Your task to perform on an android device: Open Google Chrome Image 0: 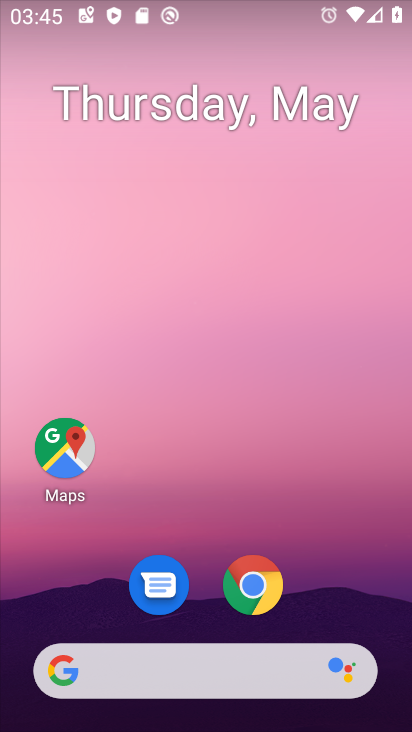
Step 0: click (245, 579)
Your task to perform on an android device: Open Google Chrome Image 1: 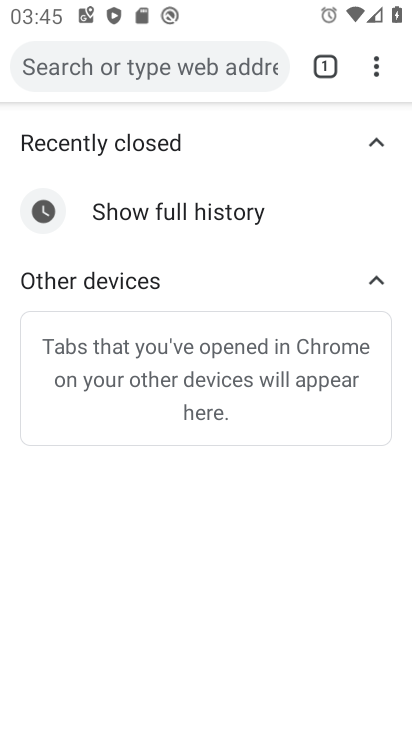
Step 1: press home button
Your task to perform on an android device: Open Google Chrome Image 2: 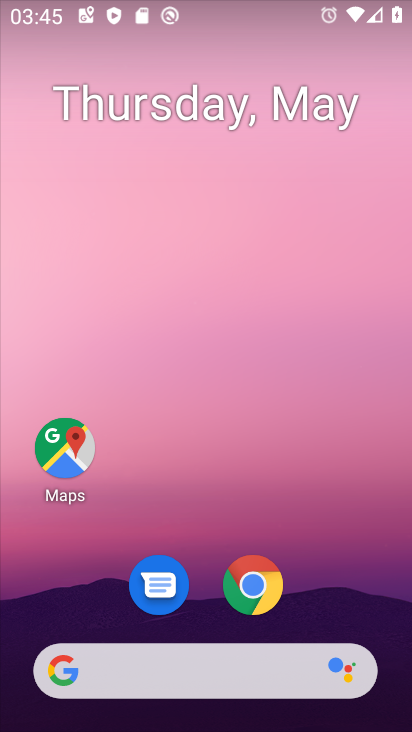
Step 2: click (251, 586)
Your task to perform on an android device: Open Google Chrome Image 3: 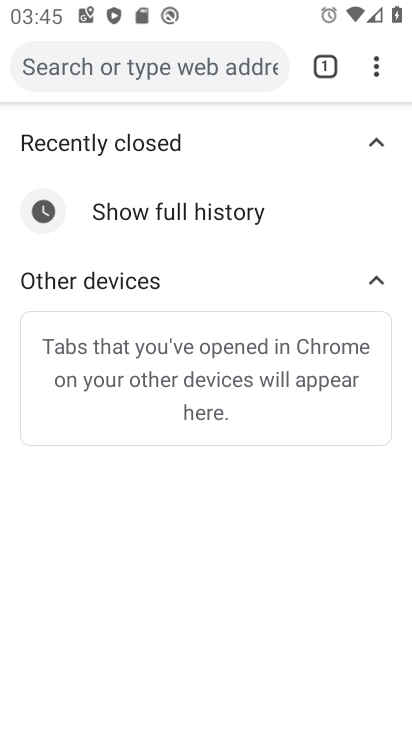
Step 3: click (369, 63)
Your task to perform on an android device: Open Google Chrome Image 4: 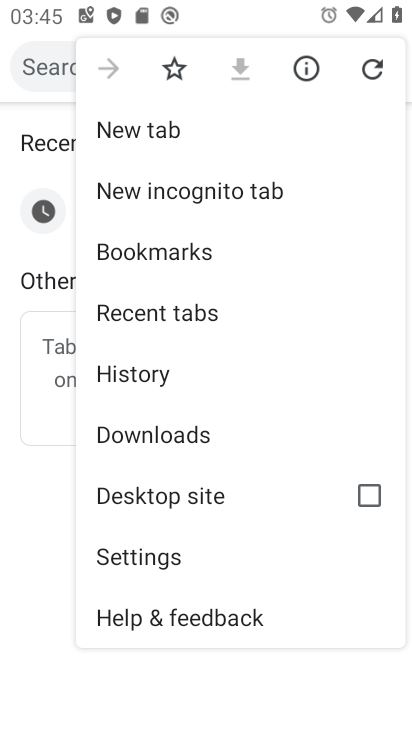
Step 4: click (290, 120)
Your task to perform on an android device: Open Google Chrome Image 5: 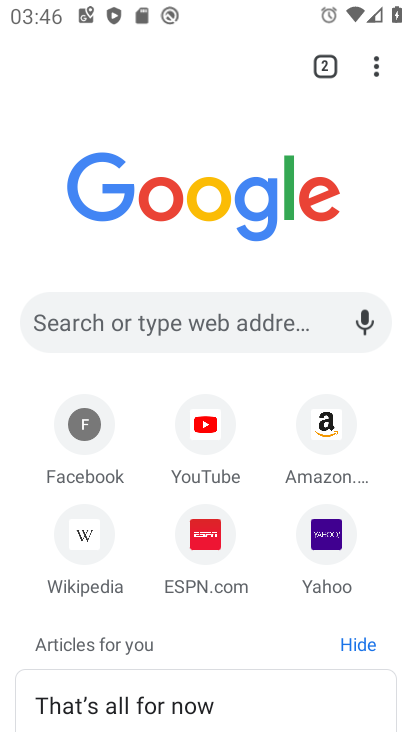
Step 5: task complete